Your task to perform on an android device: Go to privacy settings Image 0: 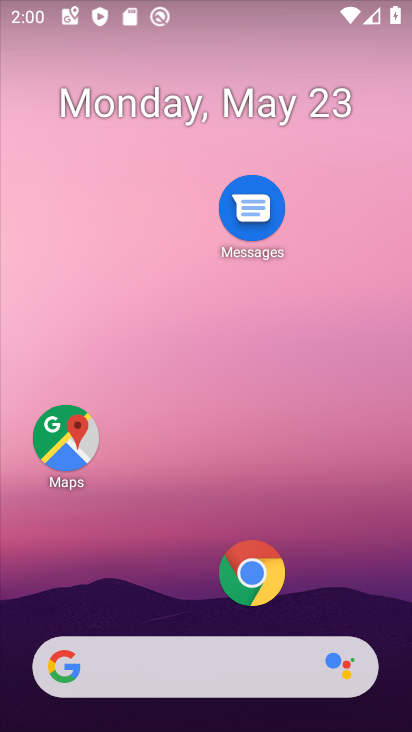
Step 0: drag from (288, 567) to (287, 20)
Your task to perform on an android device: Go to privacy settings Image 1: 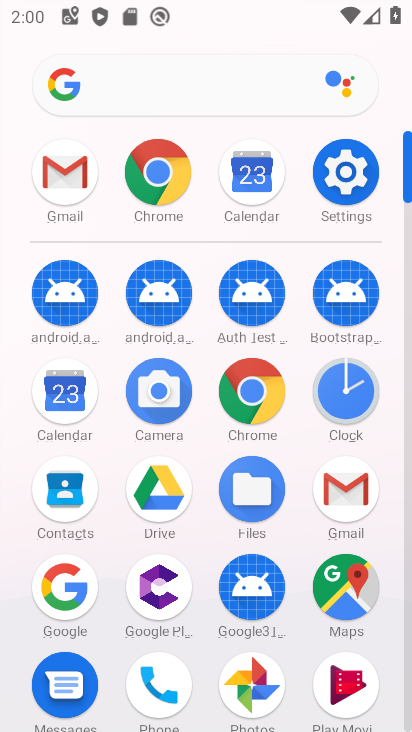
Step 1: click (359, 172)
Your task to perform on an android device: Go to privacy settings Image 2: 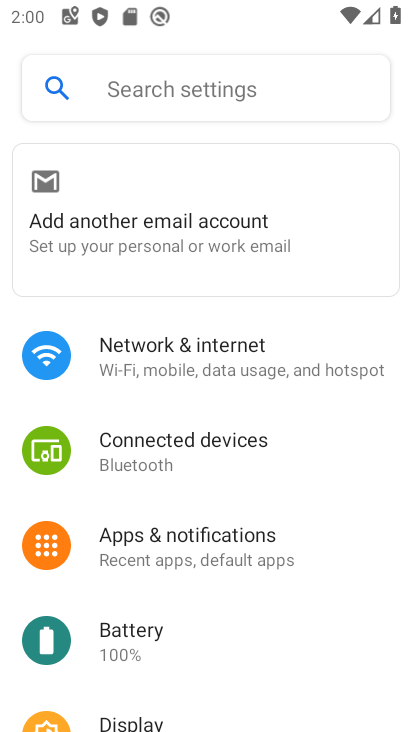
Step 2: drag from (262, 642) to (254, 156)
Your task to perform on an android device: Go to privacy settings Image 3: 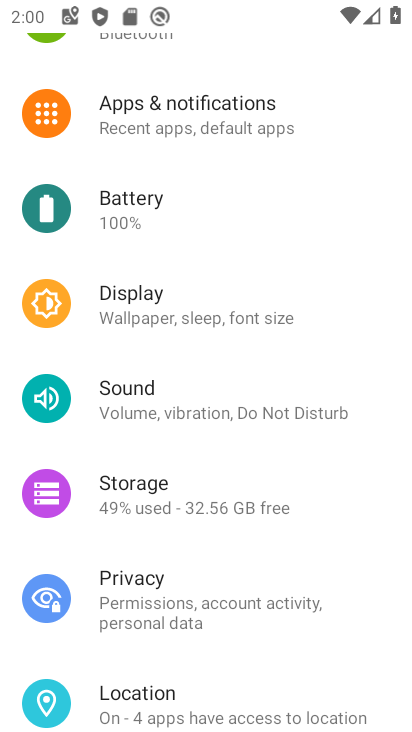
Step 3: click (225, 575)
Your task to perform on an android device: Go to privacy settings Image 4: 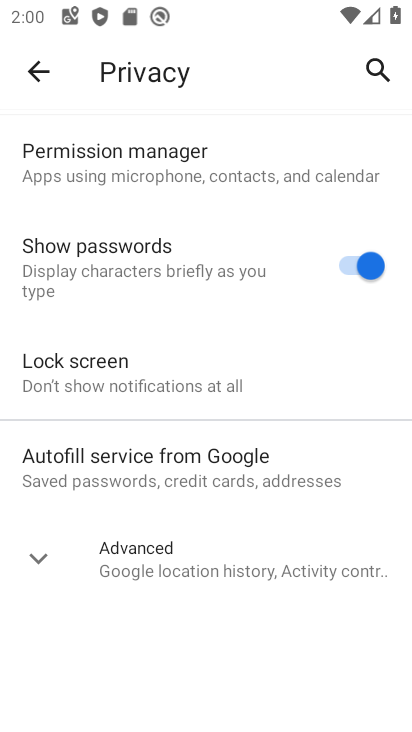
Step 4: task complete